Your task to perform on an android device: toggle improve location accuracy Image 0: 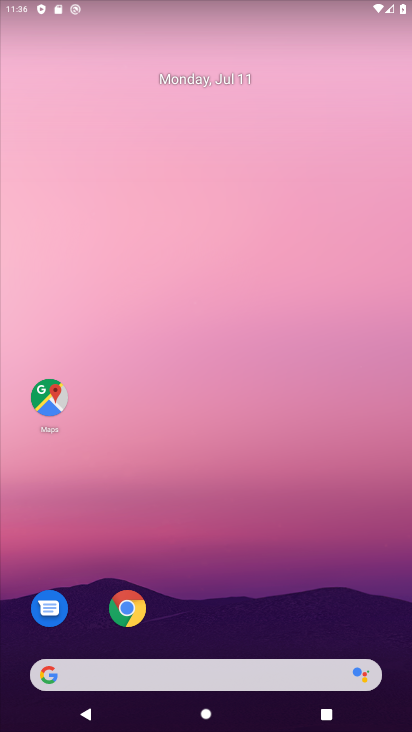
Step 0: drag from (211, 659) to (334, 55)
Your task to perform on an android device: toggle improve location accuracy Image 1: 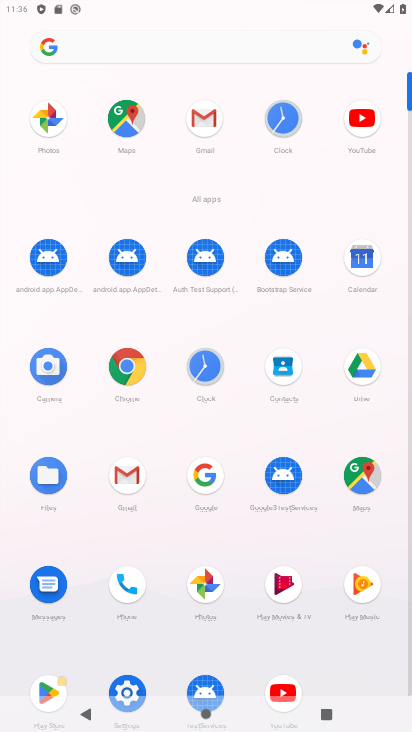
Step 1: click (140, 685)
Your task to perform on an android device: toggle improve location accuracy Image 2: 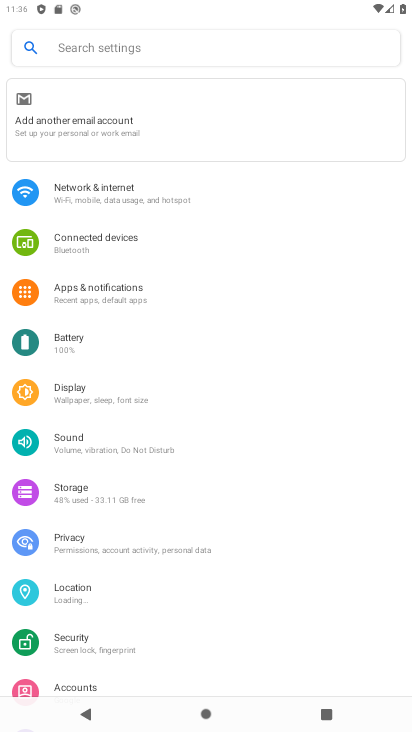
Step 2: click (96, 591)
Your task to perform on an android device: toggle improve location accuracy Image 3: 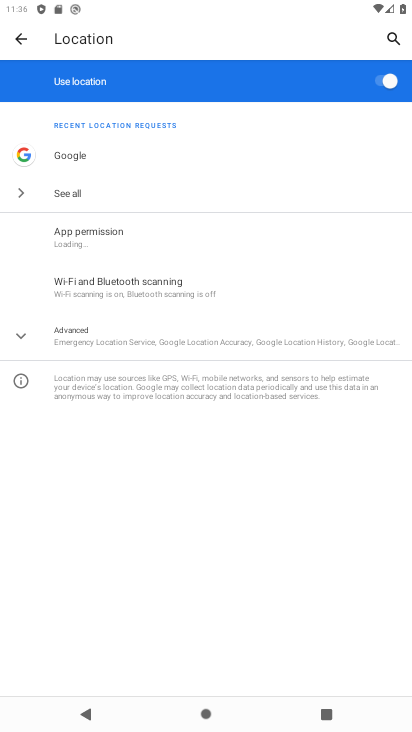
Step 3: click (109, 338)
Your task to perform on an android device: toggle improve location accuracy Image 4: 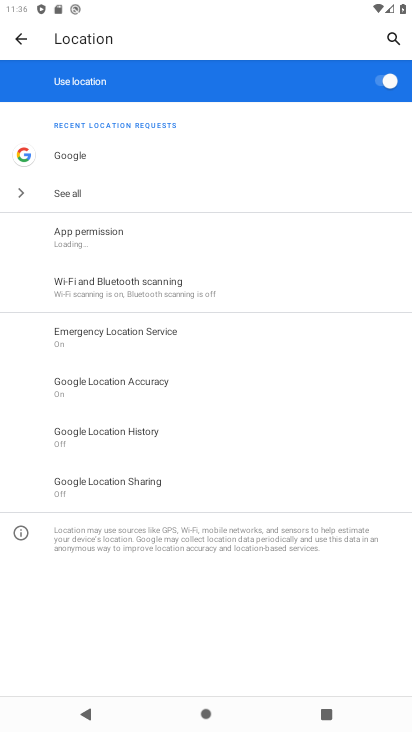
Step 4: click (167, 399)
Your task to perform on an android device: toggle improve location accuracy Image 5: 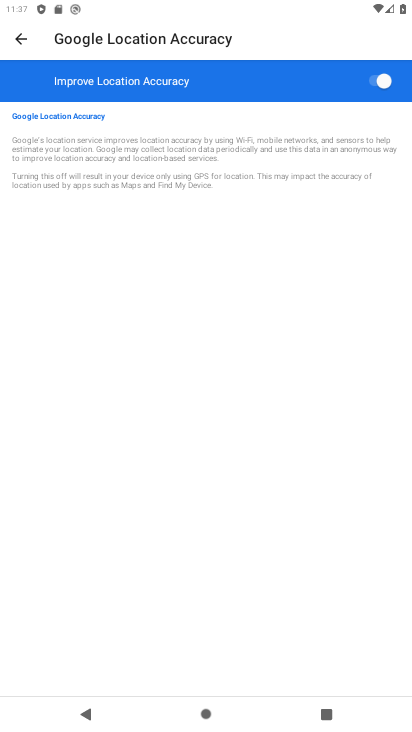
Step 5: click (374, 83)
Your task to perform on an android device: toggle improve location accuracy Image 6: 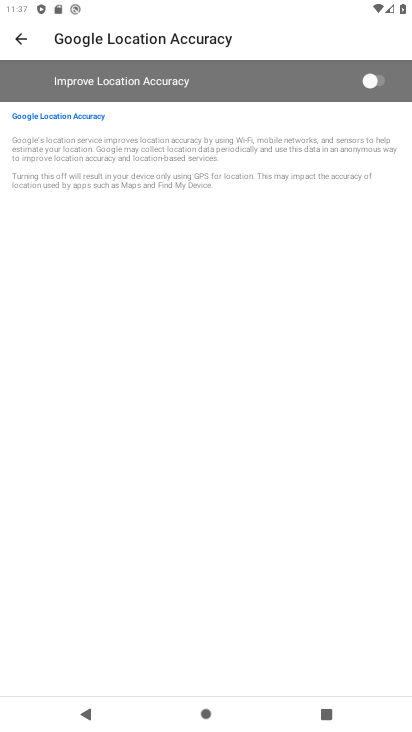
Step 6: task complete